Your task to perform on an android device: Show me recent news Image 0: 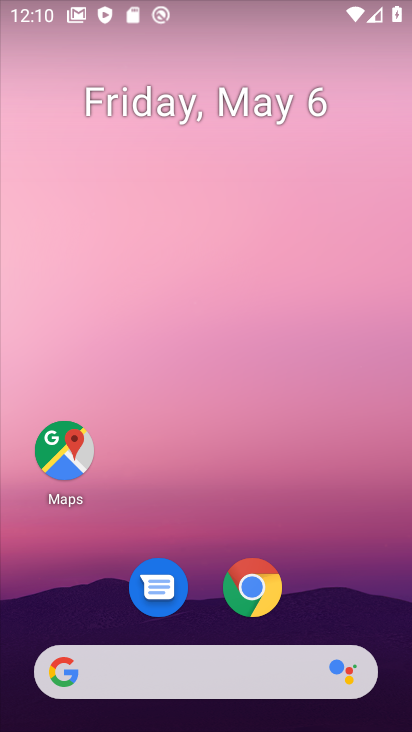
Step 0: click (108, 675)
Your task to perform on an android device: Show me recent news Image 1: 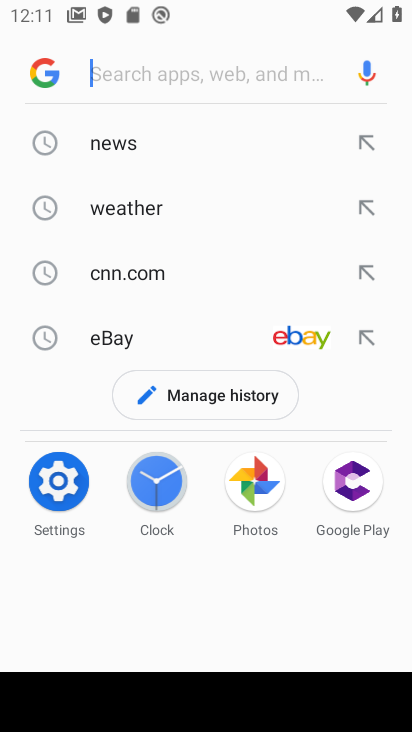
Step 1: click (80, 148)
Your task to perform on an android device: Show me recent news Image 2: 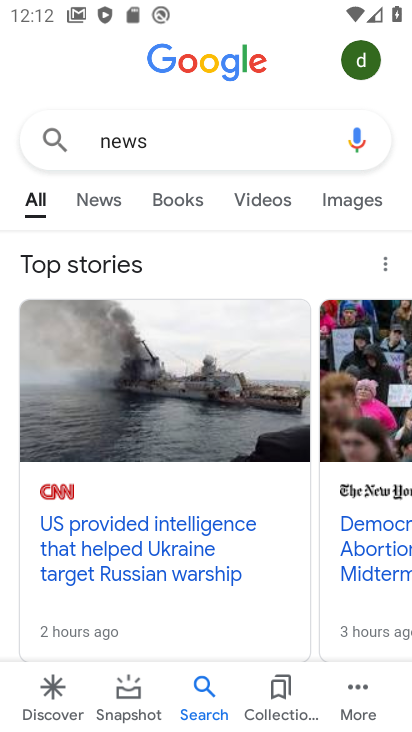
Step 2: task complete